Your task to perform on an android device: Check the weather Image 0: 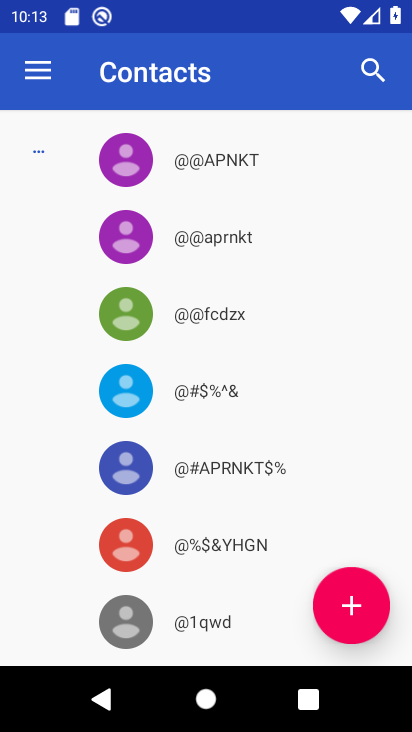
Step 0: press home button
Your task to perform on an android device: Check the weather Image 1: 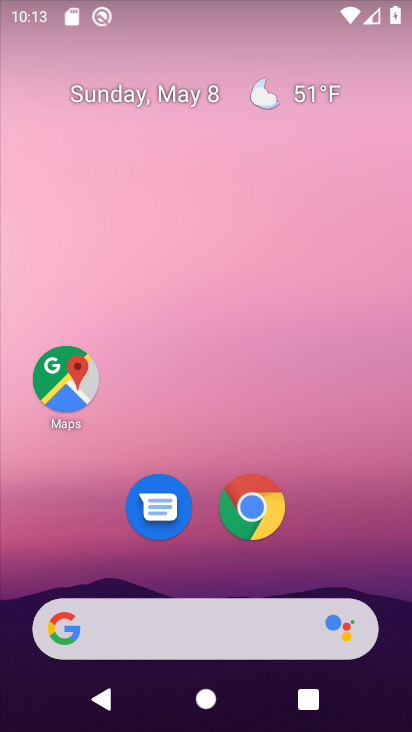
Step 1: click (306, 92)
Your task to perform on an android device: Check the weather Image 2: 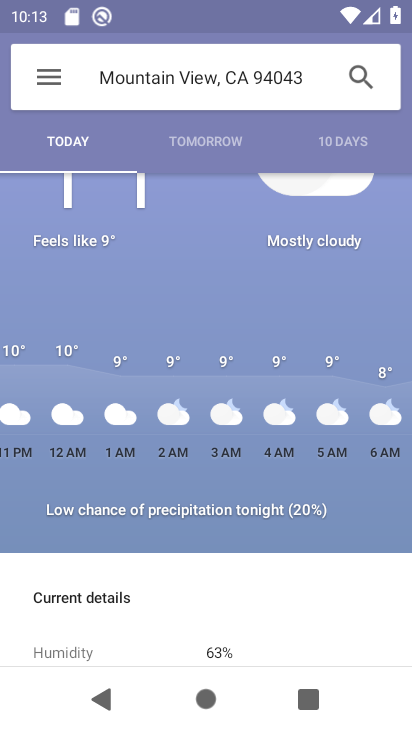
Step 2: task complete